Your task to perform on an android device: change notification settings in the gmail app Image 0: 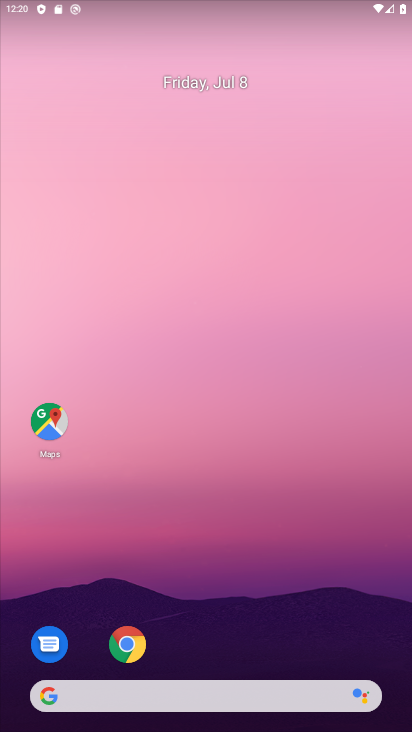
Step 0: drag from (217, 645) to (229, 304)
Your task to perform on an android device: change notification settings in the gmail app Image 1: 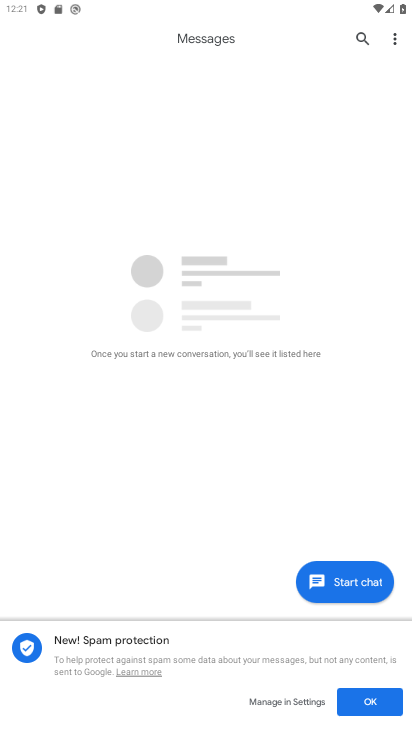
Step 1: press home button
Your task to perform on an android device: change notification settings in the gmail app Image 2: 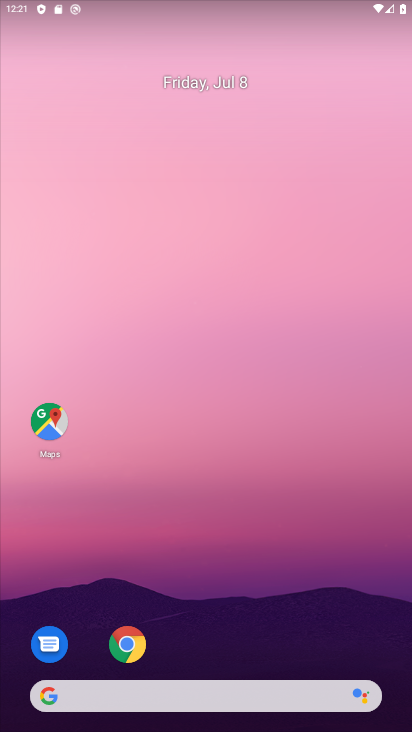
Step 2: drag from (127, 674) to (173, 325)
Your task to perform on an android device: change notification settings in the gmail app Image 3: 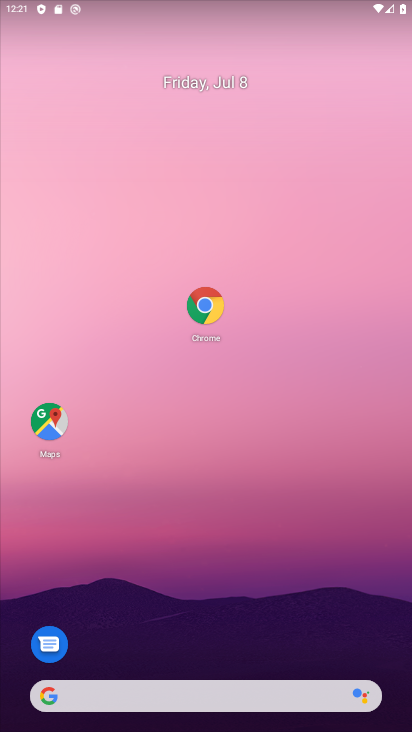
Step 3: drag from (170, 694) to (190, 142)
Your task to perform on an android device: change notification settings in the gmail app Image 4: 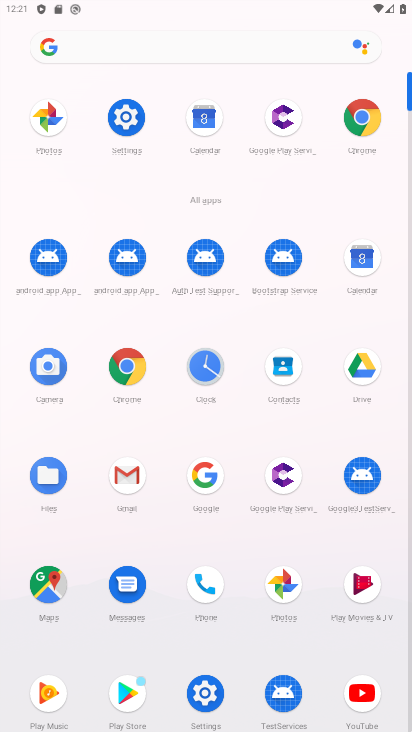
Step 4: click (127, 491)
Your task to perform on an android device: change notification settings in the gmail app Image 5: 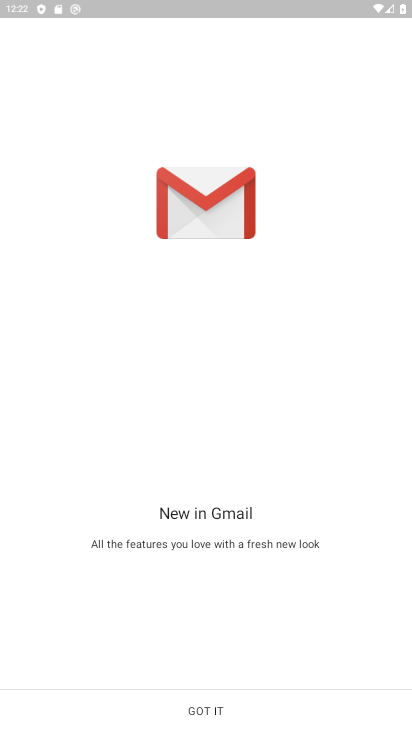
Step 5: click (204, 708)
Your task to perform on an android device: change notification settings in the gmail app Image 6: 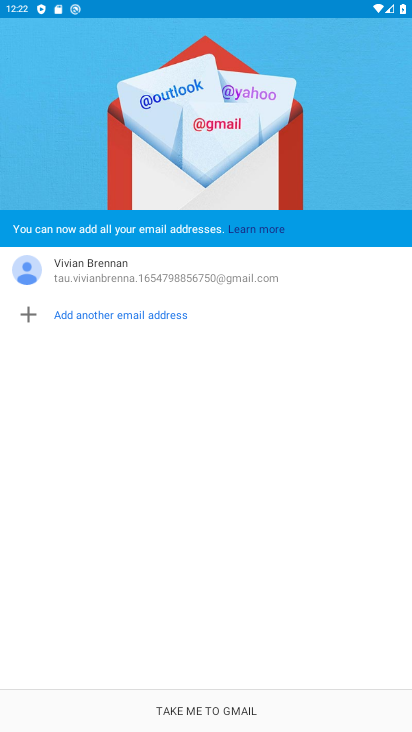
Step 6: click (202, 707)
Your task to perform on an android device: change notification settings in the gmail app Image 7: 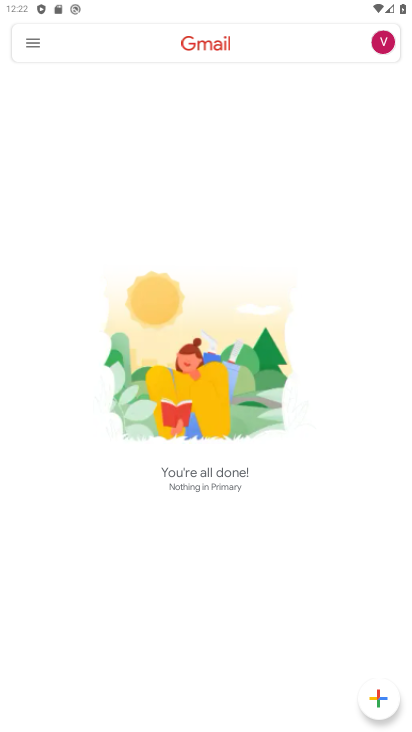
Step 7: click (28, 47)
Your task to perform on an android device: change notification settings in the gmail app Image 8: 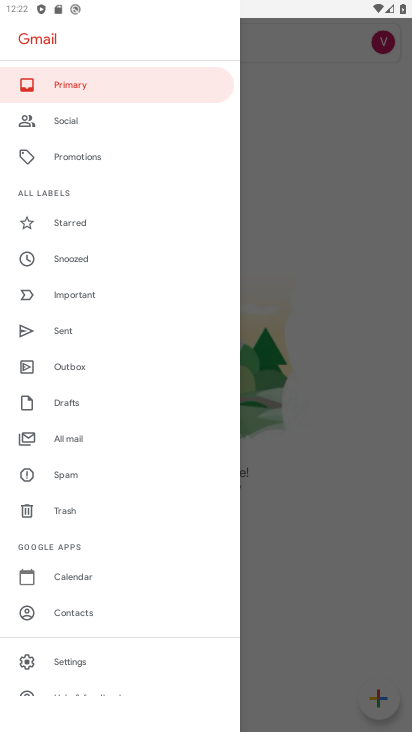
Step 8: click (65, 661)
Your task to perform on an android device: change notification settings in the gmail app Image 9: 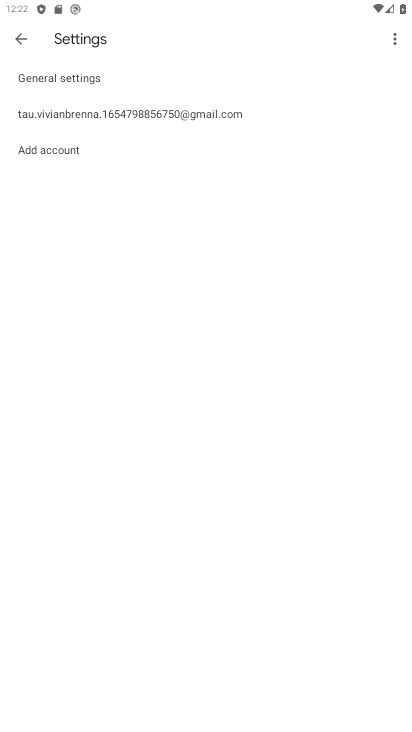
Step 9: click (84, 85)
Your task to perform on an android device: change notification settings in the gmail app Image 10: 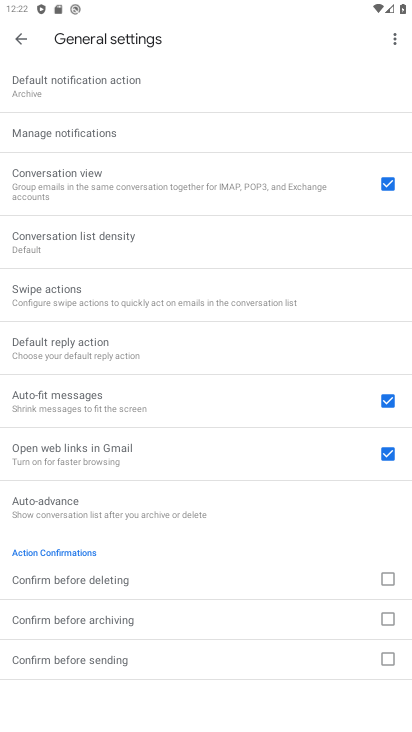
Step 10: click (59, 136)
Your task to perform on an android device: change notification settings in the gmail app Image 11: 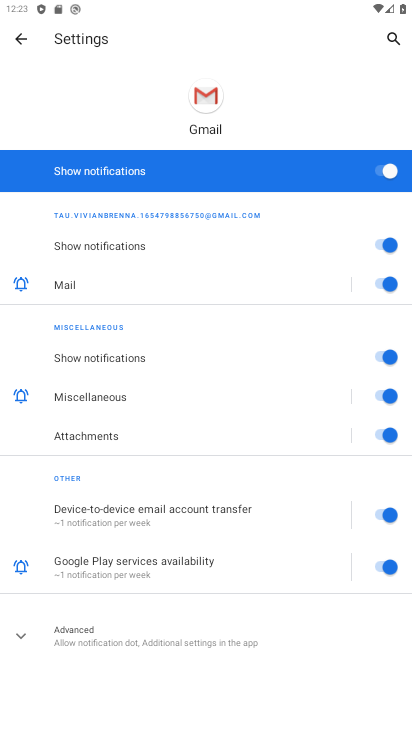
Step 11: click (376, 172)
Your task to perform on an android device: change notification settings in the gmail app Image 12: 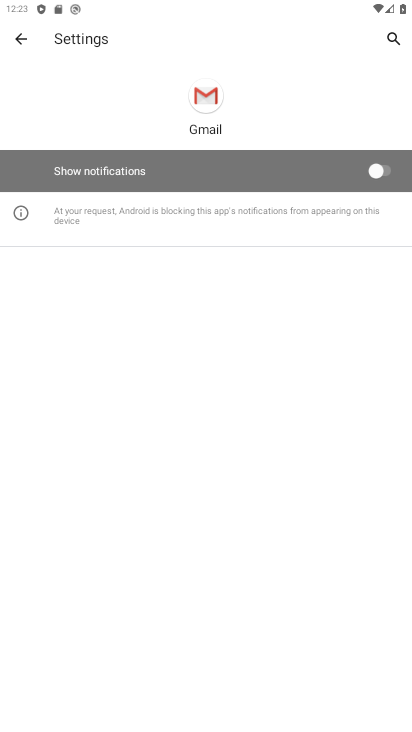
Step 12: task complete